Your task to perform on an android device: change your default location settings in chrome Image 0: 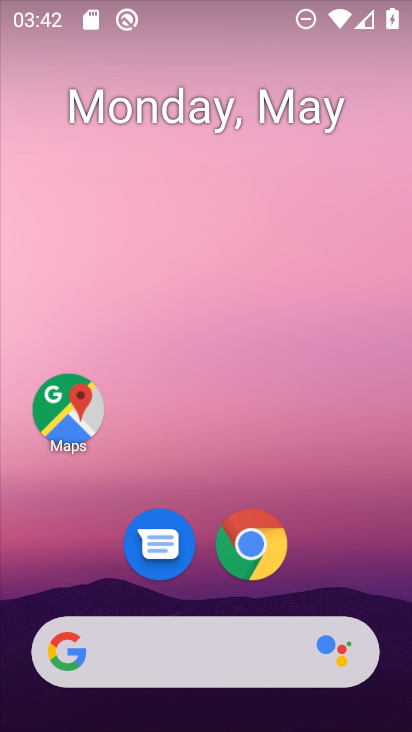
Step 0: drag from (360, 594) to (367, 200)
Your task to perform on an android device: change your default location settings in chrome Image 1: 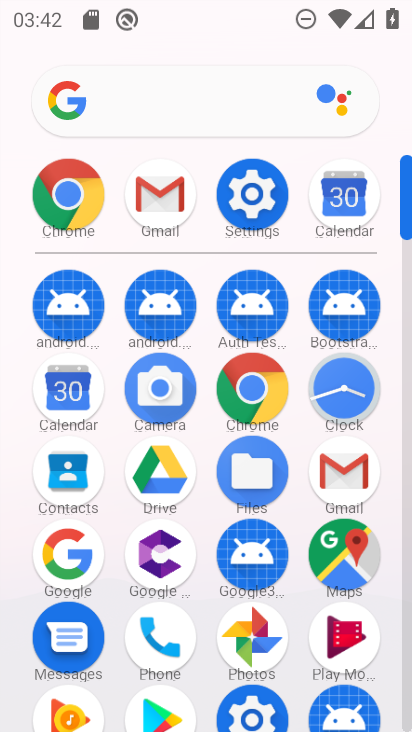
Step 1: click (262, 403)
Your task to perform on an android device: change your default location settings in chrome Image 2: 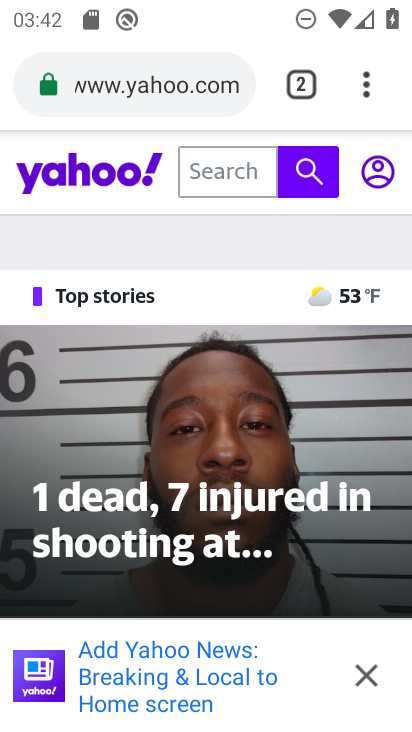
Step 2: click (372, 92)
Your task to perform on an android device: change your default location settings in chrome Image 3: 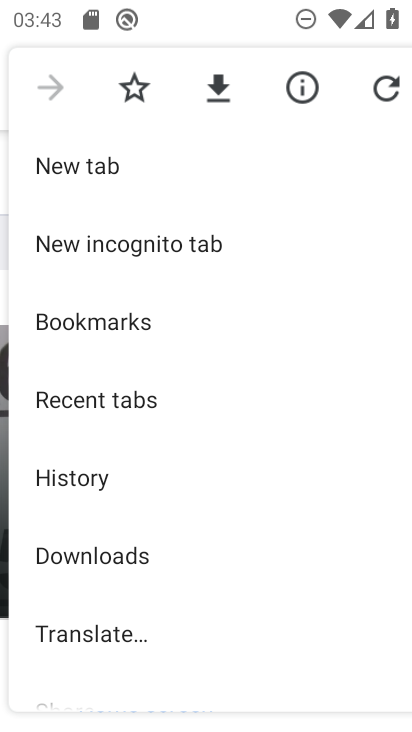
Step 3: drag from (305, 509) to (309, 411)
Your task to perform on an android device: change your default location settings in chrome Image 4: 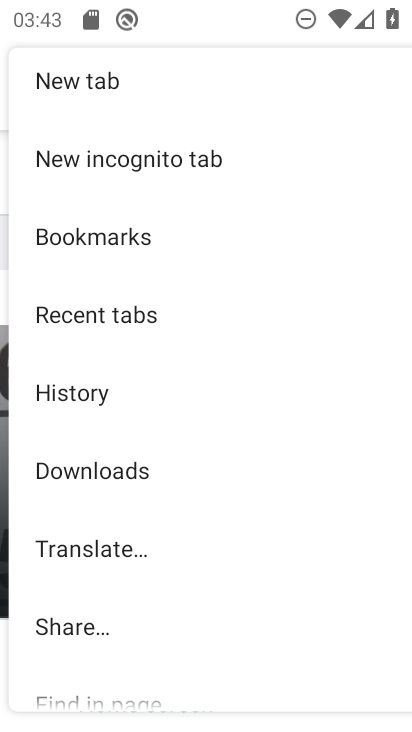
Step 4: drag from (305, 545) to (308, 464)
Your task to perform on an android device: change your default location settings in chrome Image 5: 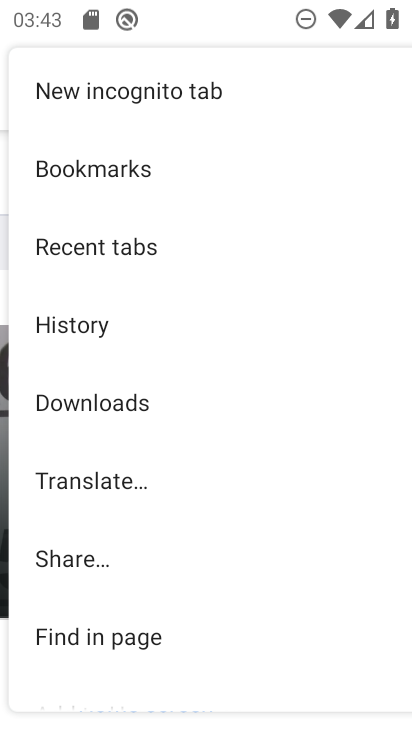
Step 5: drag from (300, 545) to (300, 454)
Your task to perform on an android device: change your default location settings in chrome Image 6: 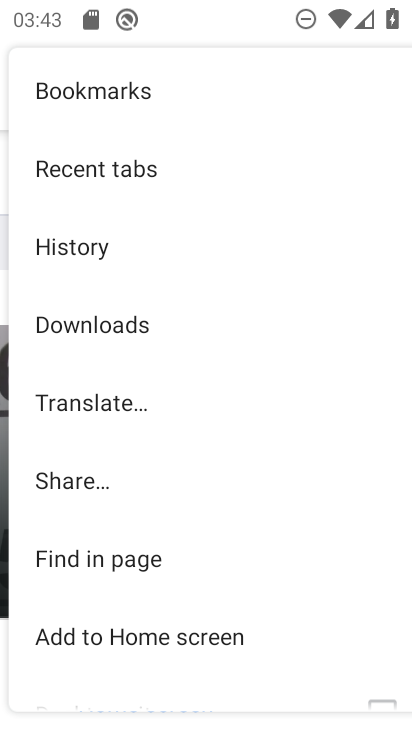
Step 6: drag from (315, 596) to (327, 471)
Your task to perform on an android device: change your default location settings in chrome Image 7: 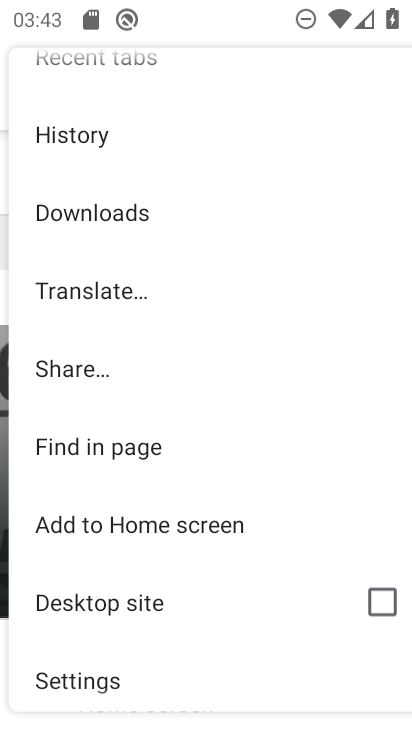
Step 7: drag from (293, 610) to (293, 489)
Your task to perform on an android device: change your default location settings in chrome Image 8: 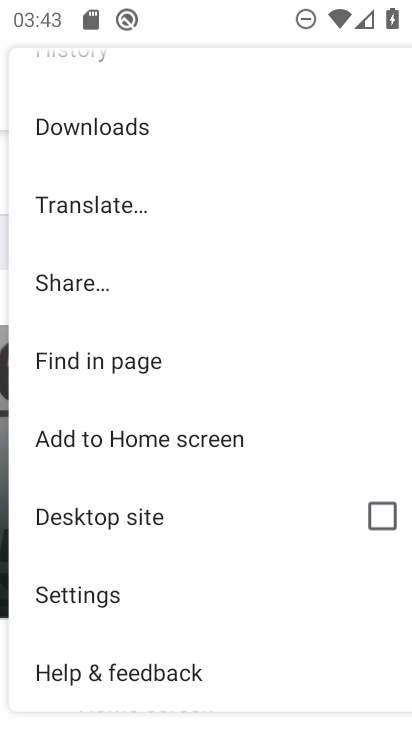
Step 8: click (134, 611)
Your task to perform on an android device: change your default location settings in chrome Image 9: 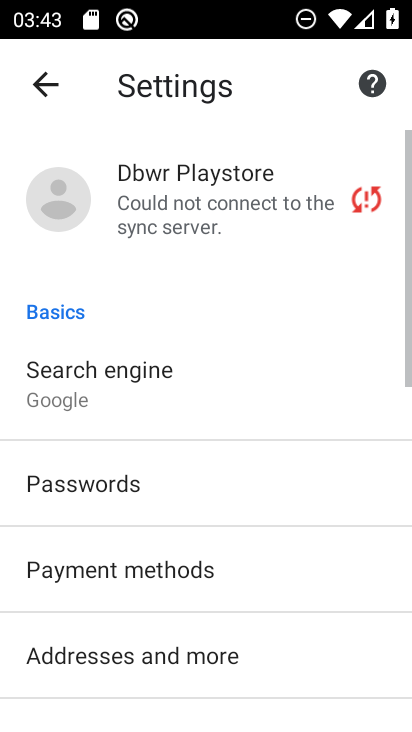
Step 9: drag from (320, 573) to (320, 497)
Your task to perform on an android device: change your default location settings in chrome Image 10: 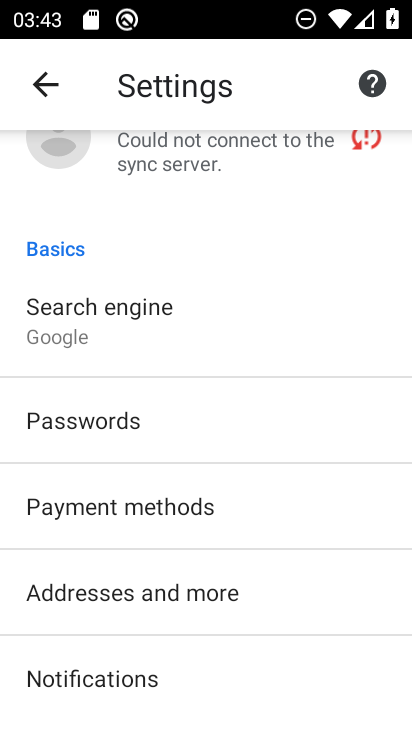
Step 10: drag from (328, 616) to (339, 530)
Your task to perform on an android device: change your default location settings in chrome Image 11: 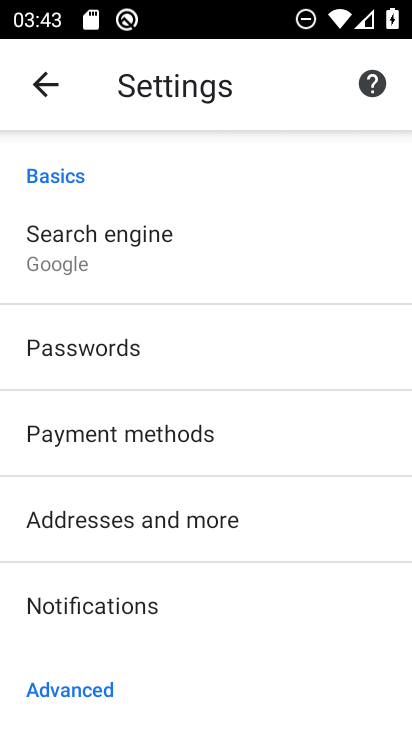
Step 11: drag from (335, 632) to (343, 555)
Your task to perform on an android device: change your default location settings in chrome Image 12: 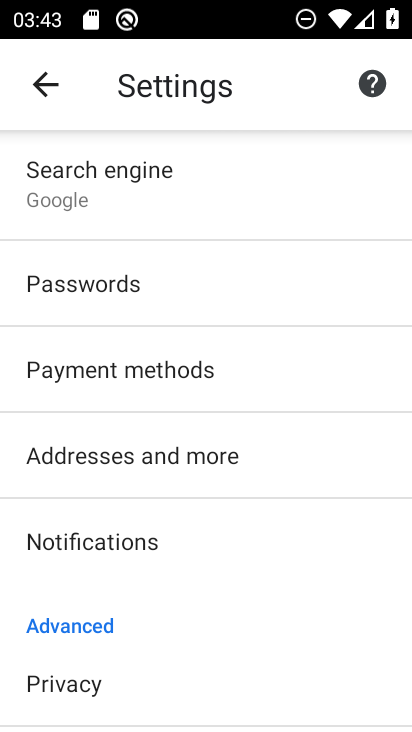
Step 12: drag from (329, 620) to (325, 505)
Your task to perform on an android device: change your default location settings in chrome Image 13: 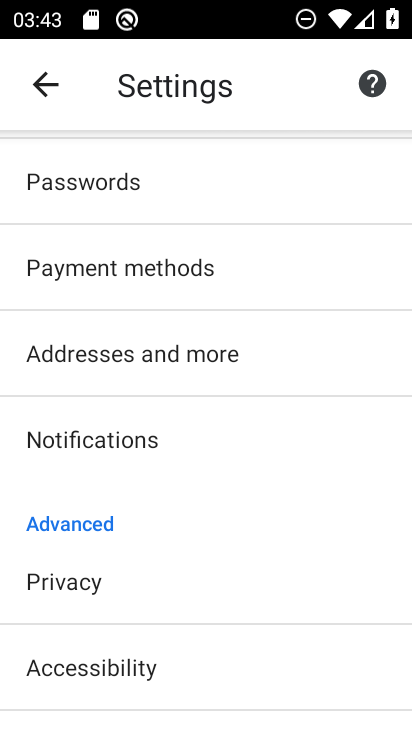
Step 13: drag from (333, 652) to (329, 519)
Your task to perform on an android device: change your default location settings in chrome Image 14: 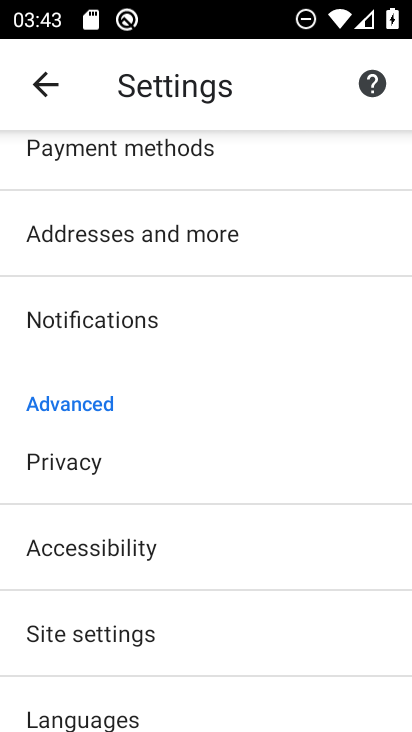
Step 14: drag from (291, 621) to (284, 521)
Your task to perform on an android device: change your default location settings in chrome Image 15: 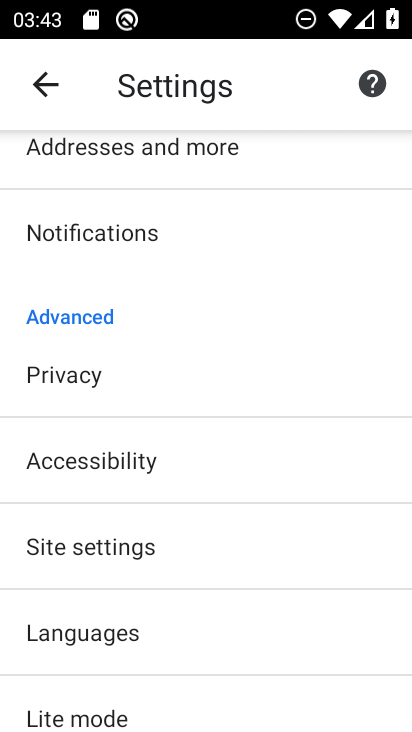
Step 15: drag from (230, 642) to (241, 537)
Your task to perform on an android device: change your default location settings in chrome Image 16: 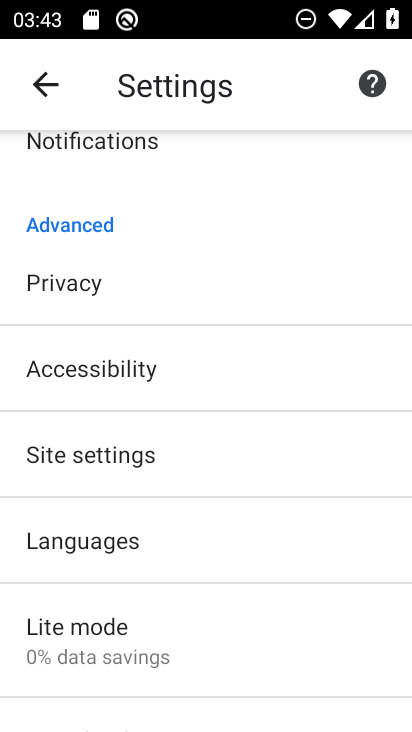
Step 16: click (278, 478)
Your task to perform on an android device: change your default location settings in chrome Image 17: 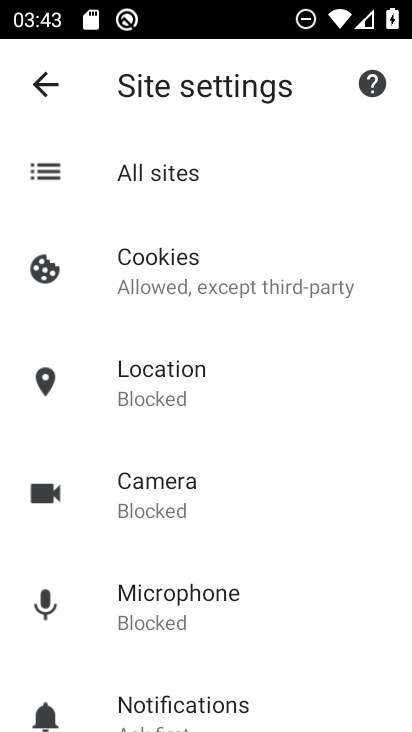
Step 17: drag from (308, 597) to (312, 531)
Your task to perform on an android device: change your default location settings in chrome Image 18: 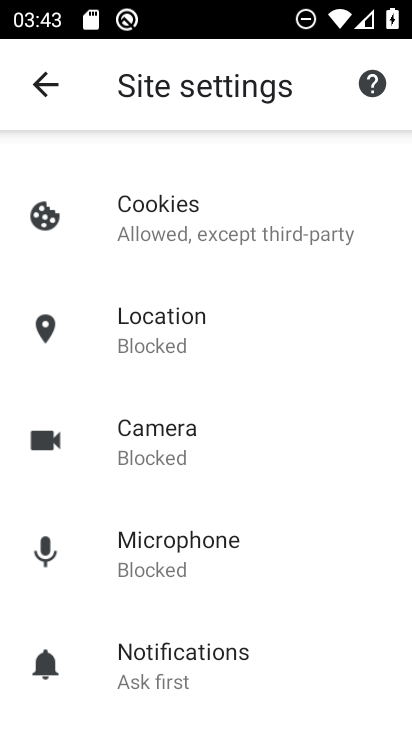
Step 18: drag from (328, 627) to (329, 514)
Your task to perform on an android device: change your default location settings in chrome Image 19: 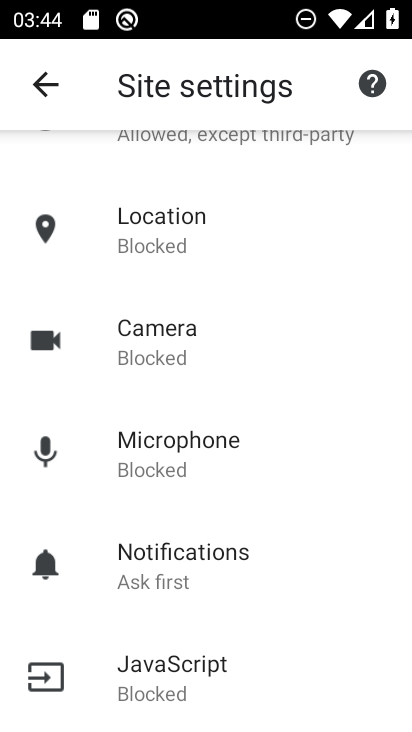
Step 19: drag from (333, 582) to (332, 499)
Your task to perform on an android device: change your default location settings in chrome Image 20: 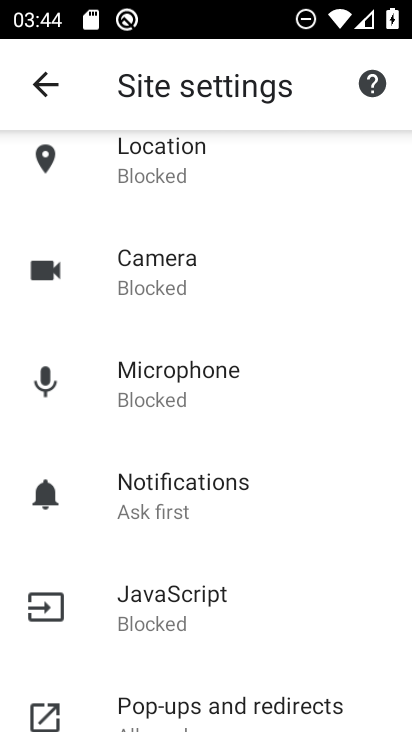
Step 20: drag from (318, 604) to (315, 518)
Your task to perform on an android device: change your default location settings in chrome Image 21: 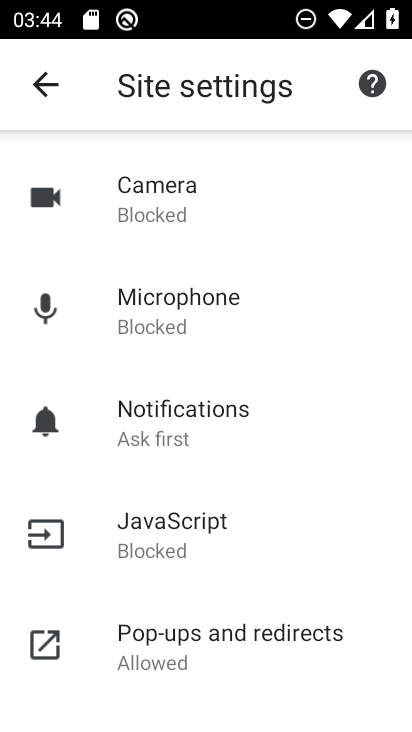
Step 21: drag from (302, 644) to (305, 549)
Your task to perform on an android device: change your default location settings in chrome Image 22: 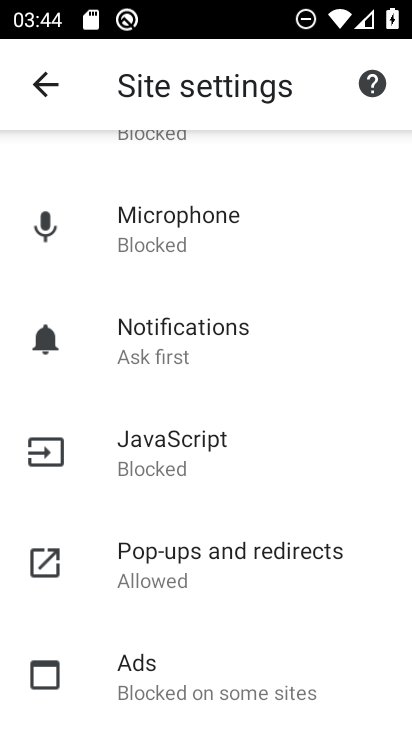
Step 22: drag from (293, 335) to (301, 431)
Your task to perform on an android device: change your default location settings in chrome Image 23: 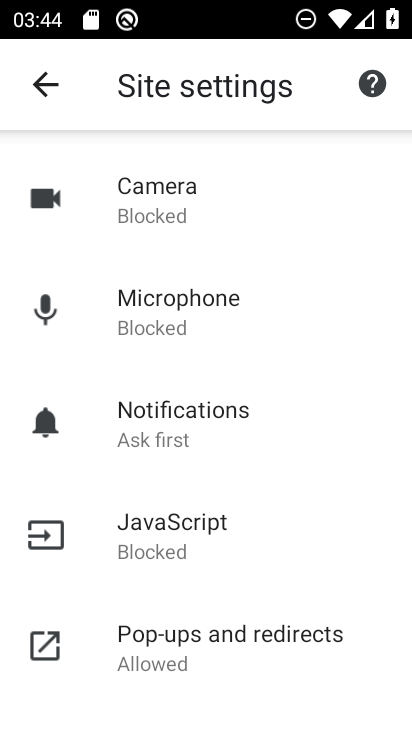
Step 23: drag from (306, 273) to (297, 396)
Your task to perform on an android device: change your default location settings in chrome Image 24: 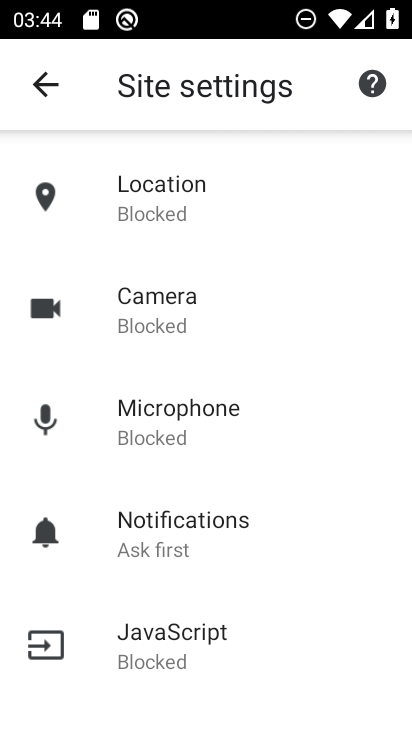
Step 24: drag from (302, 238) to (299, 331)
Your task to perform on an android device: change your default location settings in chrome Image 25: 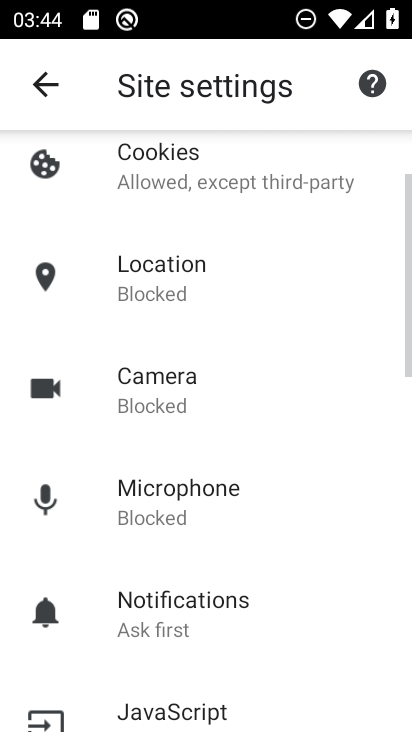
Step 25: click (200, 299)
Your task to perform on an android device: change your default location settings in chrome Image 26: 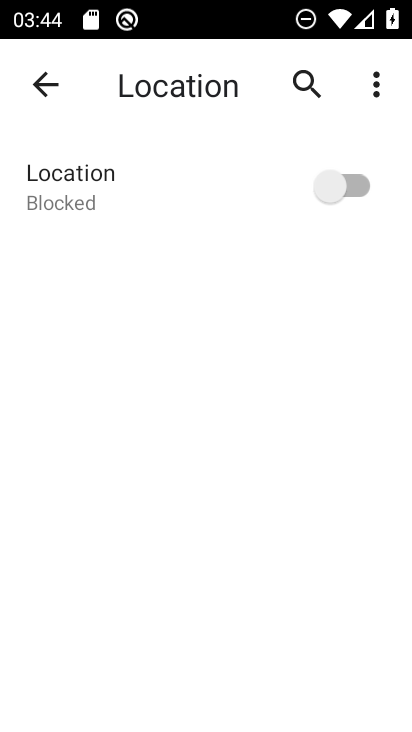
Step 26: click (348, 187)
Your task to perform on an android device: change your default location settings in chrome Image 27: 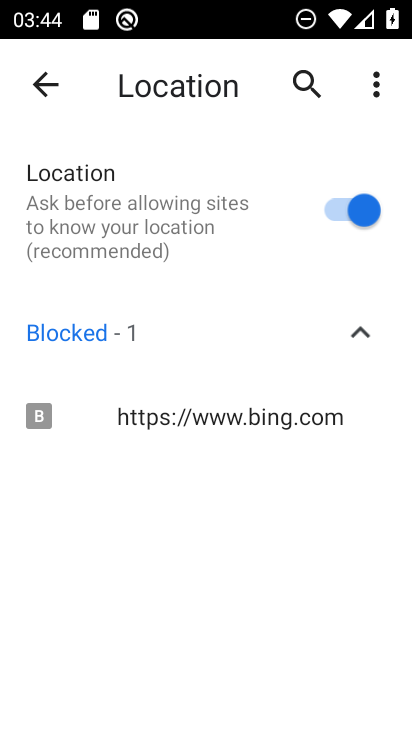
Step 27: task complete